Your task to perform on an android device: make emails show in primary in the gmail app Image 0: 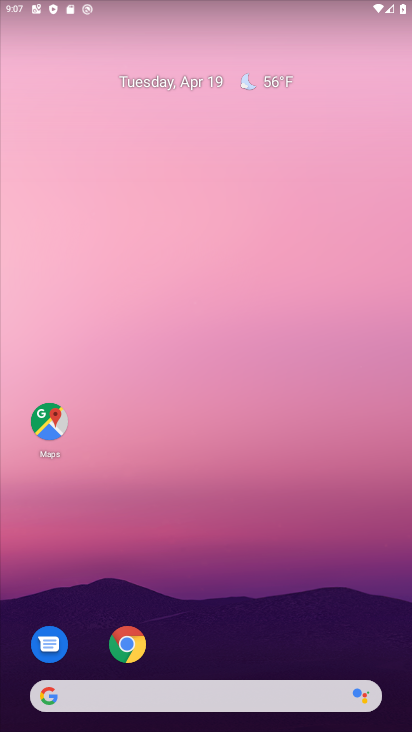
Step 0: drag from (211, 642) to (229, 164)
Your task to perform on an android device: make emails show in primary in the gmail app Image 1: 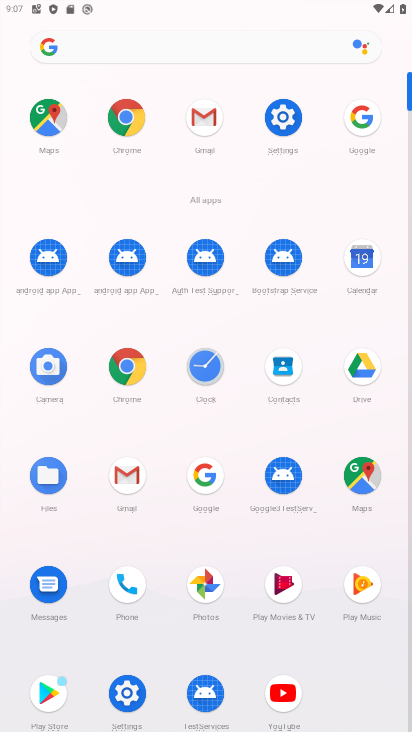
Step 1: click (116, 476)
Your task to perform on an android device: make emails show in primary in the gmail app Image 2: 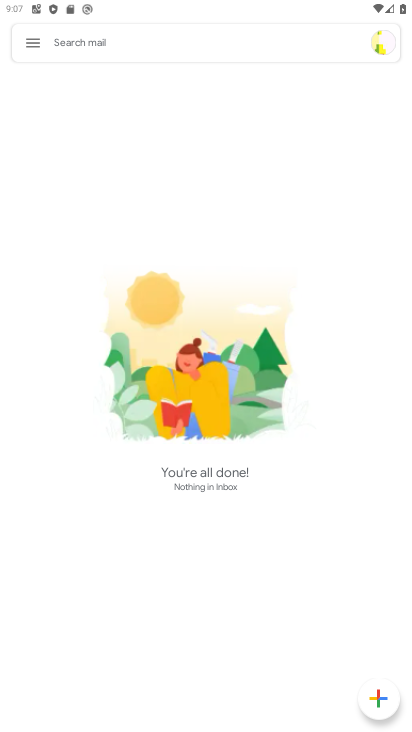
Step 2: click (36, 43)
Your task to perform on an android device: make emails show in primary in the gmail app Image 3: 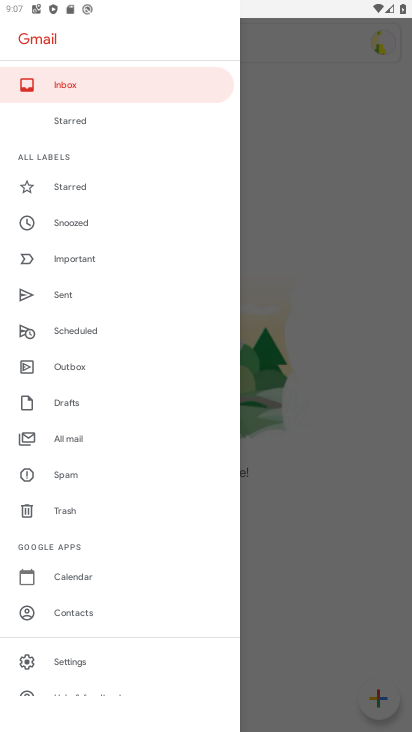
Step 3: click (84, 661)
Your task to perform on an android device: make emails show in primary in the gmail app Image 4: 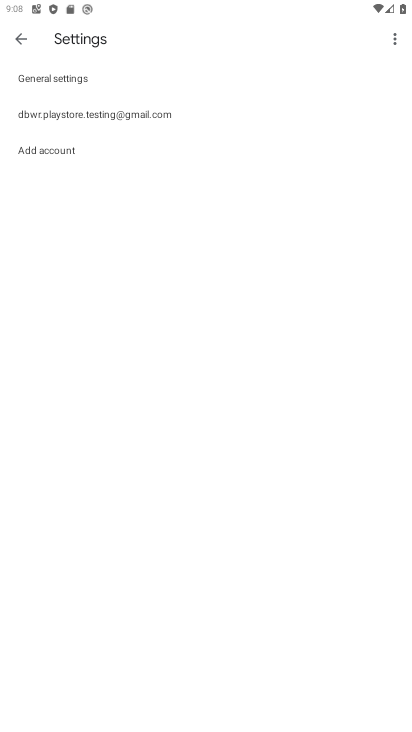
Step 4: click (106, 118)
Your task to perform on an android device: make emails show in primary in the gmail app Image 5: 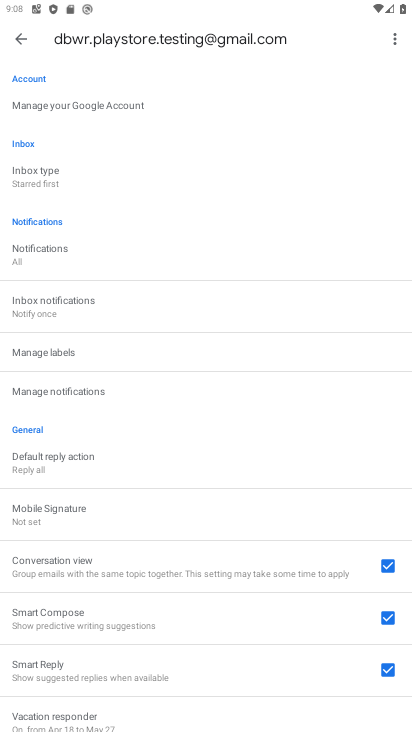
Step 5: click (66, 180)
Your task to perform on an android device: make emails show in primary in the gmail app Image 6: 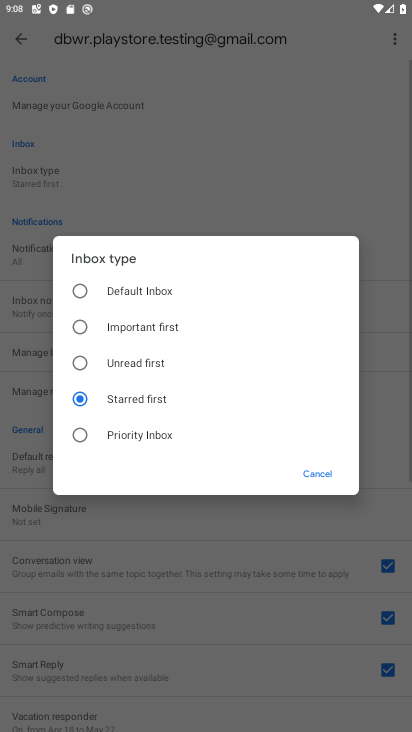
Step 6: click (98, 286)
Your task to perform on an android device: make emails show in primary in the gmail app Image 7: 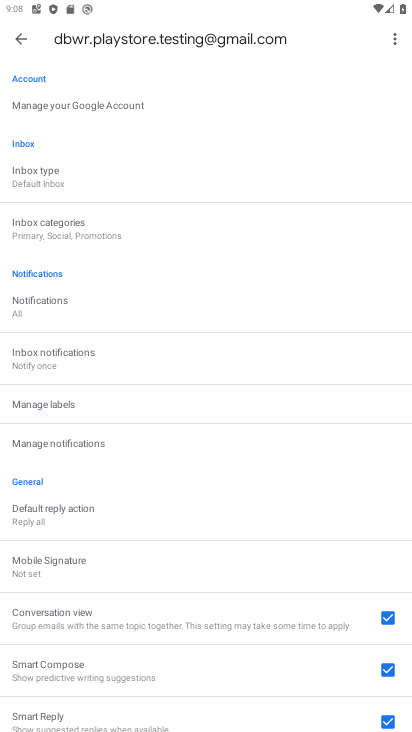
Step 7: click (76, 222)
Your task to perform on an android device: make emails show in primary in the gmail app Image 8: 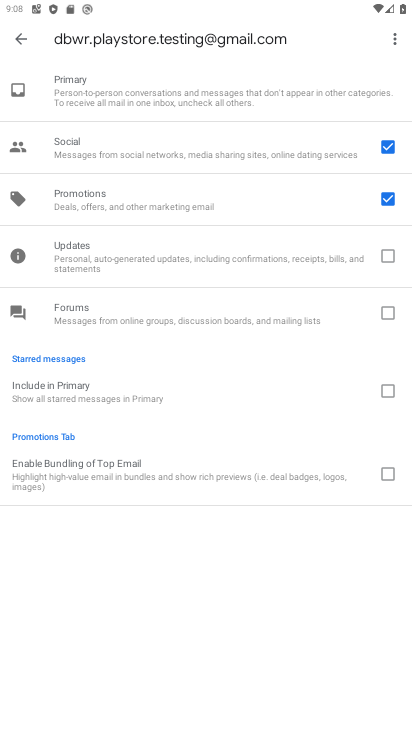
Step 8: click (113, 105)
Your task to perform on an android device: make emails show in primary in the gmail app Image 9: 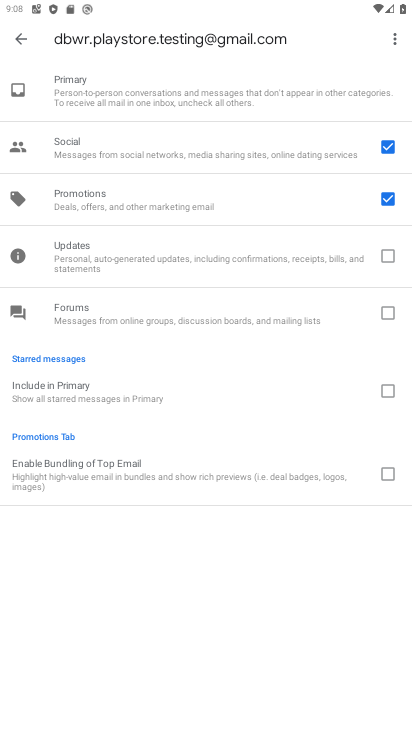
Step 9: task complete